Your task to perform on an android device: clear all cookies in the chrome app Image 0: 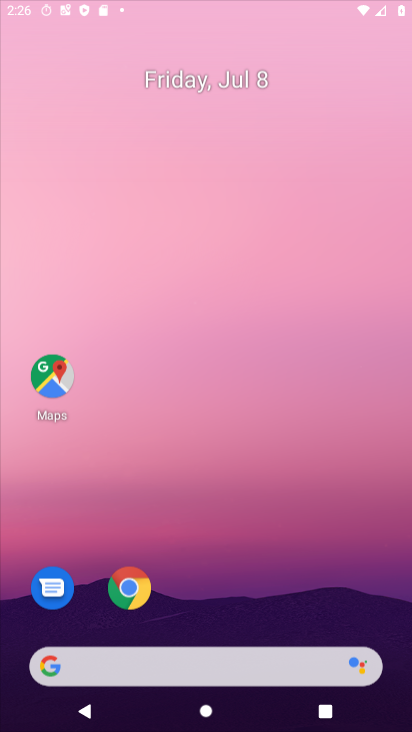
Step 0: press home button
Your task to perform on an android device: clear all cookies in the chrome app Image 1: 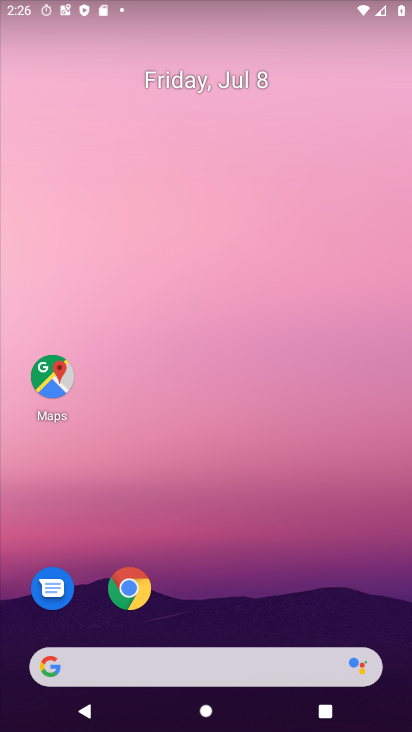
Step 1: drag from (259, 590) to (258, 151)
Your task to perform on an android device: clear all cookies in the chrome app Image 2: 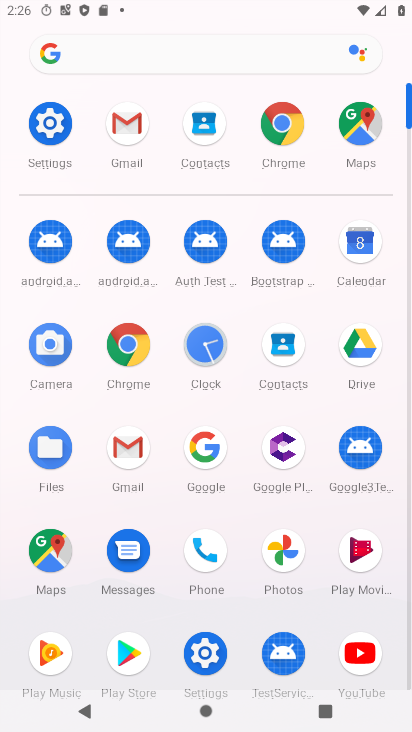
Step 2: click (285, 127)
Your task to perform on an android device: clear all cookies in the chrome app Image 3: 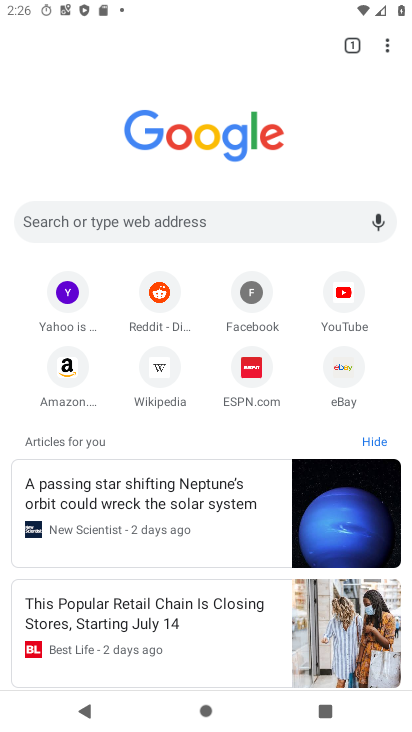
Step 3: drag from (386, 50) to (237, 378)
Your task to perform on an android device: clear all cookies in the chrome app Image 4: 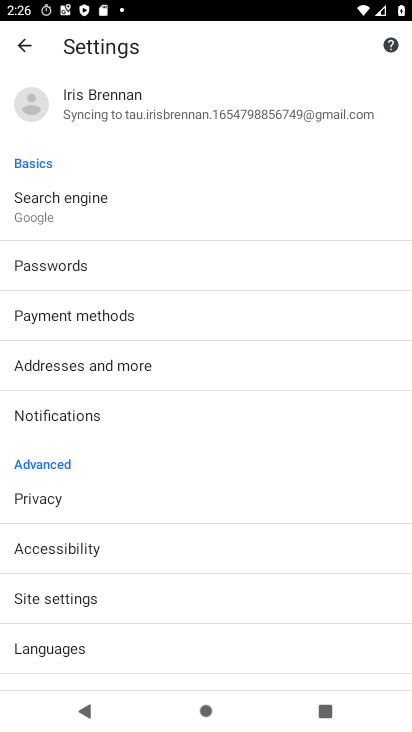
Step 4: click (24, 502)
Your task to perform on an android device: clear all cookies in the chrome app Image 5: 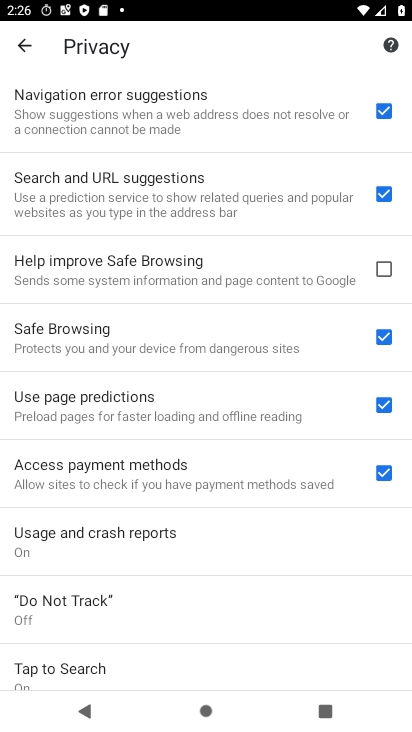
Step 5: drag from (324, 661) to (382, 89)
Your task to perform on an android device: clear all cookies in the chrome app Image 6: 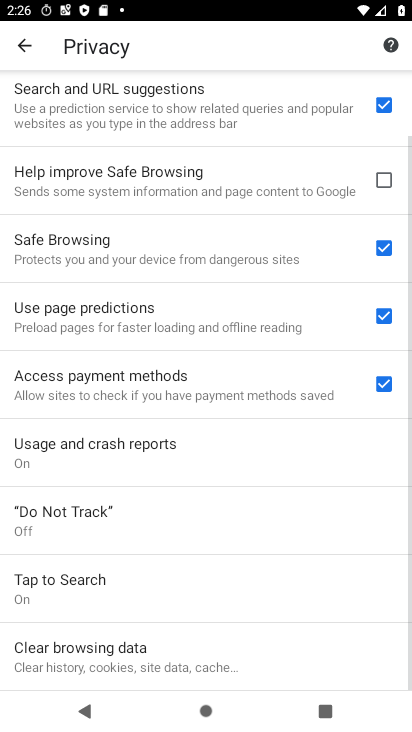
Step 6: click (70, 652)
Your task to perform on an android device: clear all cookies in the chrome app Image 7: 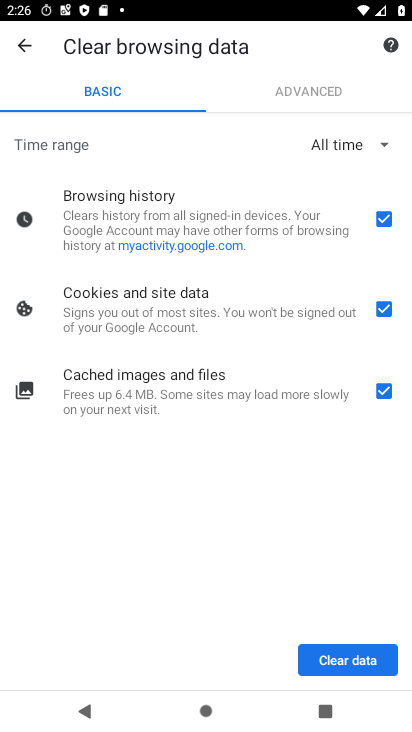
Step 7: click (381, 219)
Your task to perform on an android device: clear all cookies in the chrome app Image 8: 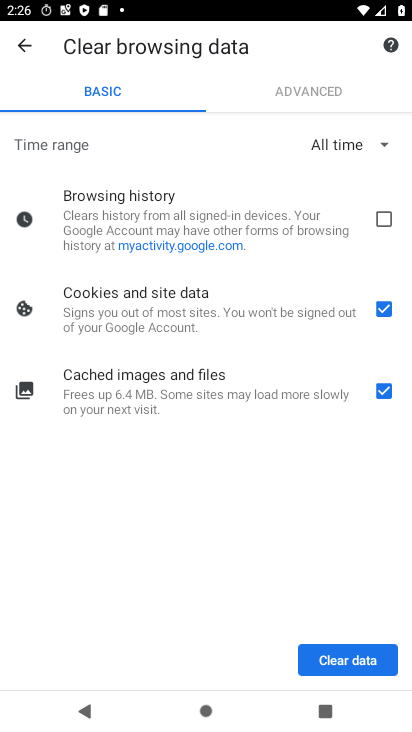
Step 8: click (391, 387)
Your task to perform on an android device: clear all cookies in the chrome app Image 9: 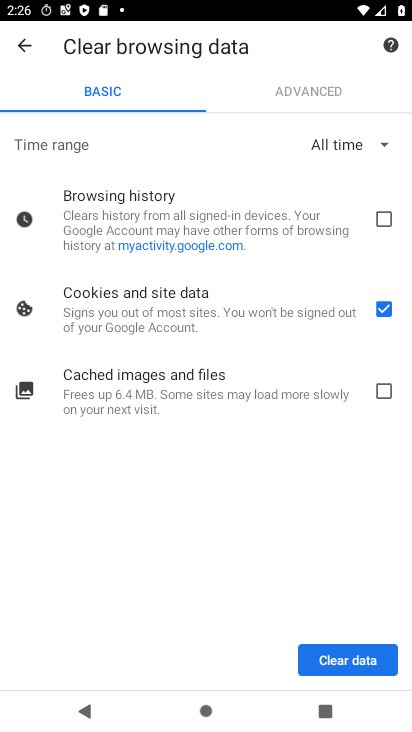
Step 9: click (351, 661)
Your task to perform on an android device: clear all cookies in the chrome app Image 10: 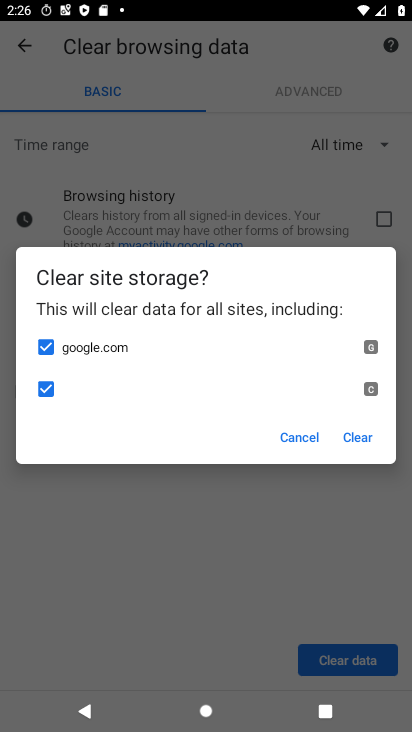
Step 10: click (361, 435)
Your task to perform on an android device: clear all cookies in the chrome app Image 11: 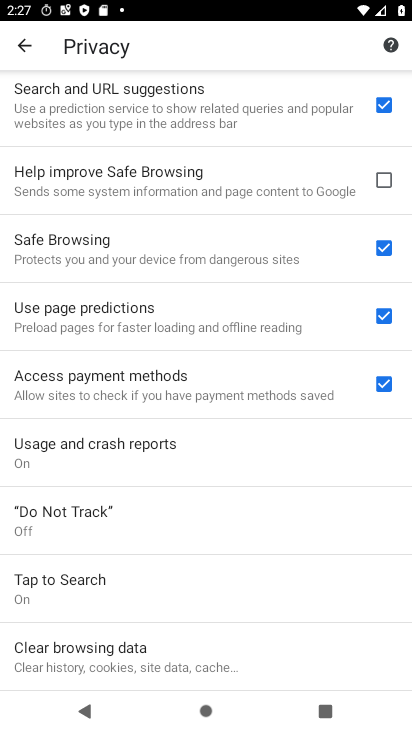
Step 11: task complete